Your task to perform on an android device: delete the emails in spam in the gmail app Image 0: 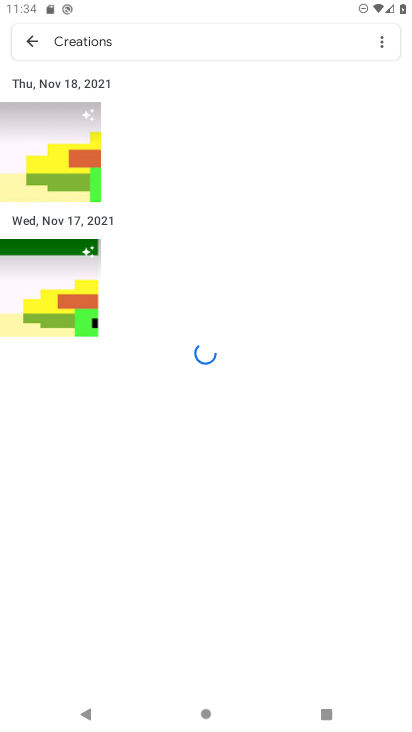
Step 0: press home button
Your task to perform on an android device: delete the emails in spam in the gmail app Image 1: 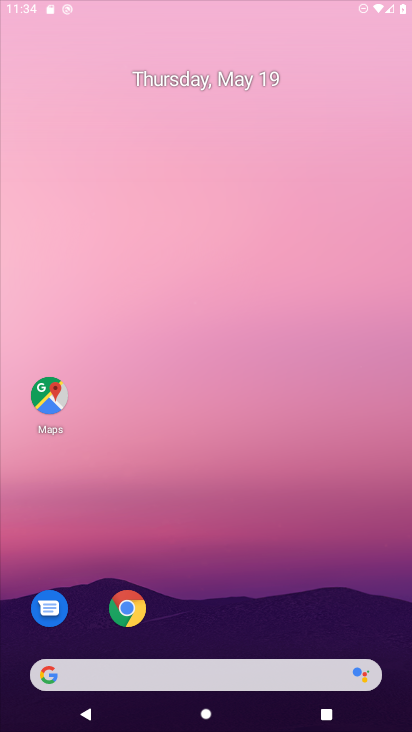
Step 1: drag from (354, 607) to (301, 0)
Your task to perform on an android device: delete the emails in spam in the gmail app Image 2: 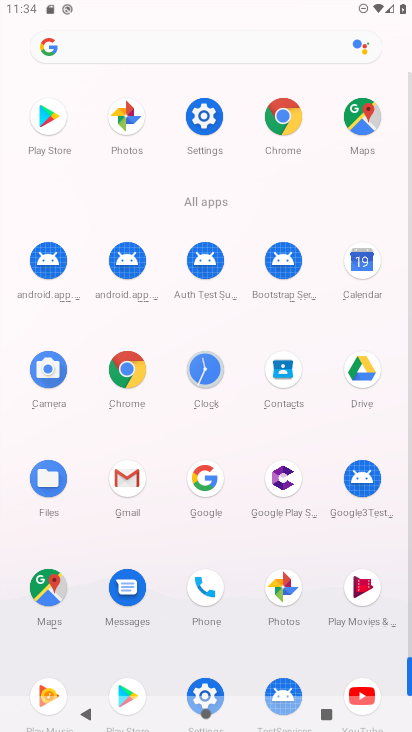
Step 2: click (142, 502)
Your task to perform on an android device: delete the emails in spam in the gmail app Image 3: 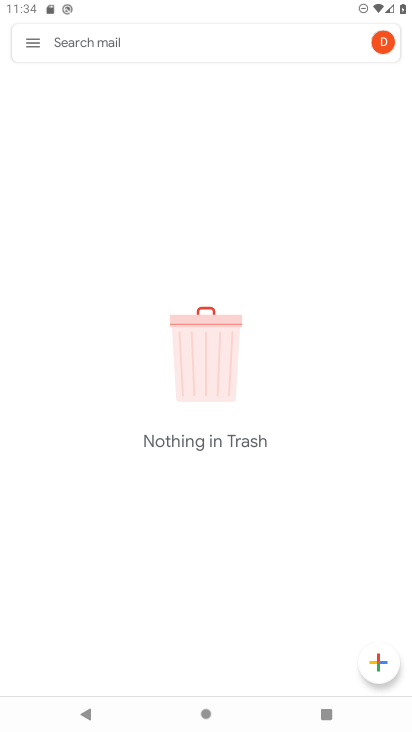
Step 3: click (38, 28)
Your task to perform on an android device: delete the emails in spam in the gmail app Image 4: 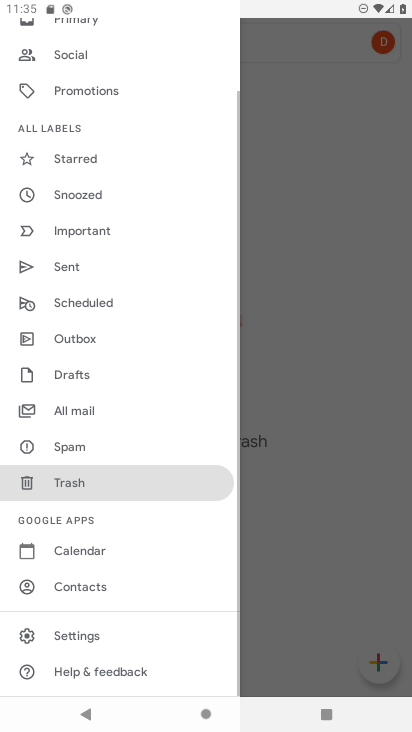
Step 4: task complete